Your task to perform on an android device: visit the assistant section in the google photos Image 0: 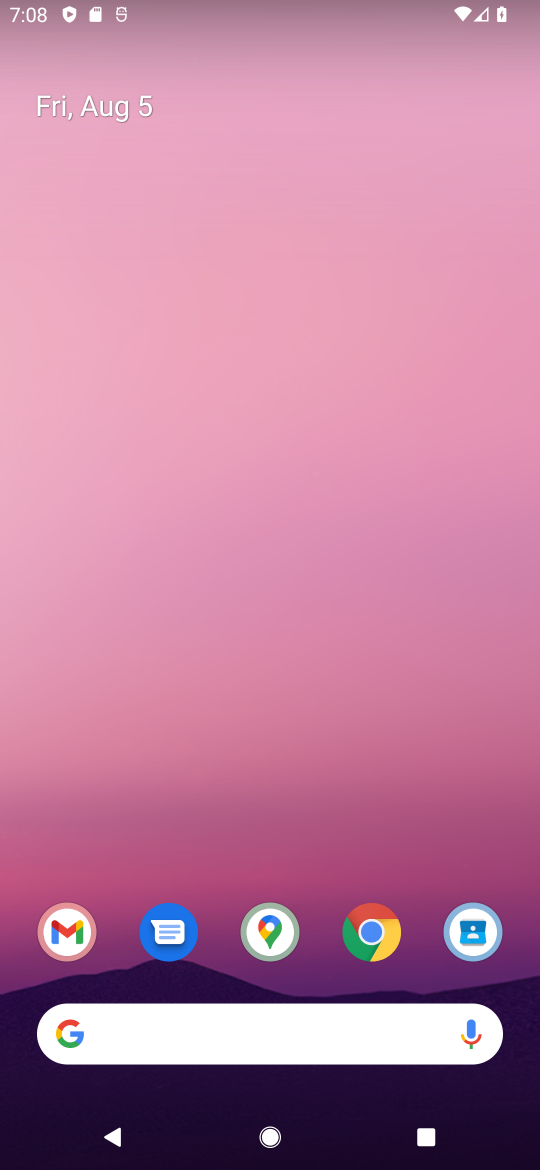
Step 0: drag from (411, 878) to (371, 204)
Your task to perform on an android device: visit the assistant section in the google photos Image 1: 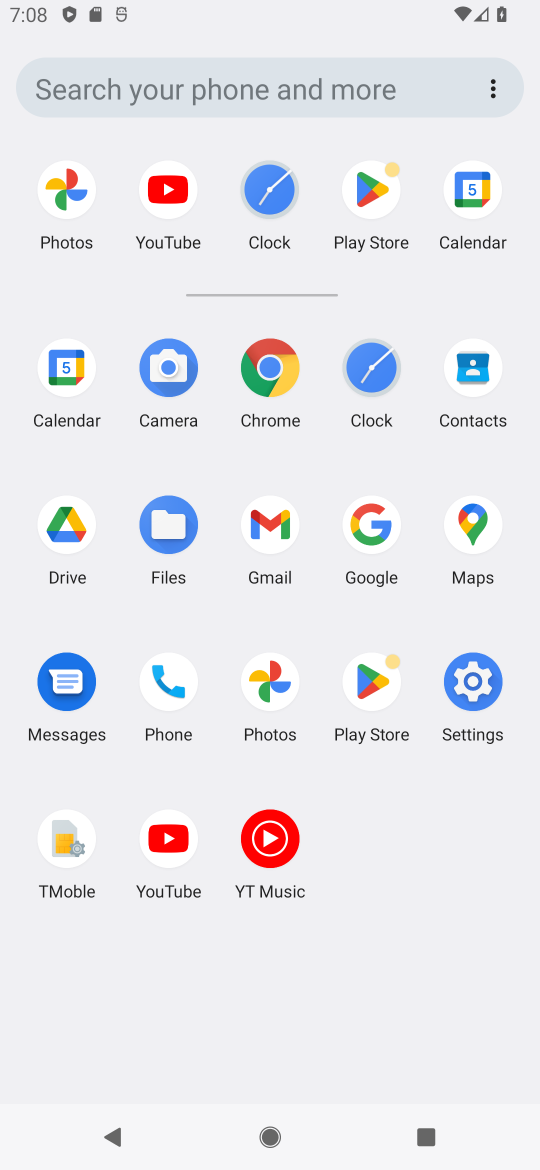
Step 1: click (275, 663)
Your task to perform on an android device: visit the assistant section in the google photos Image 2: 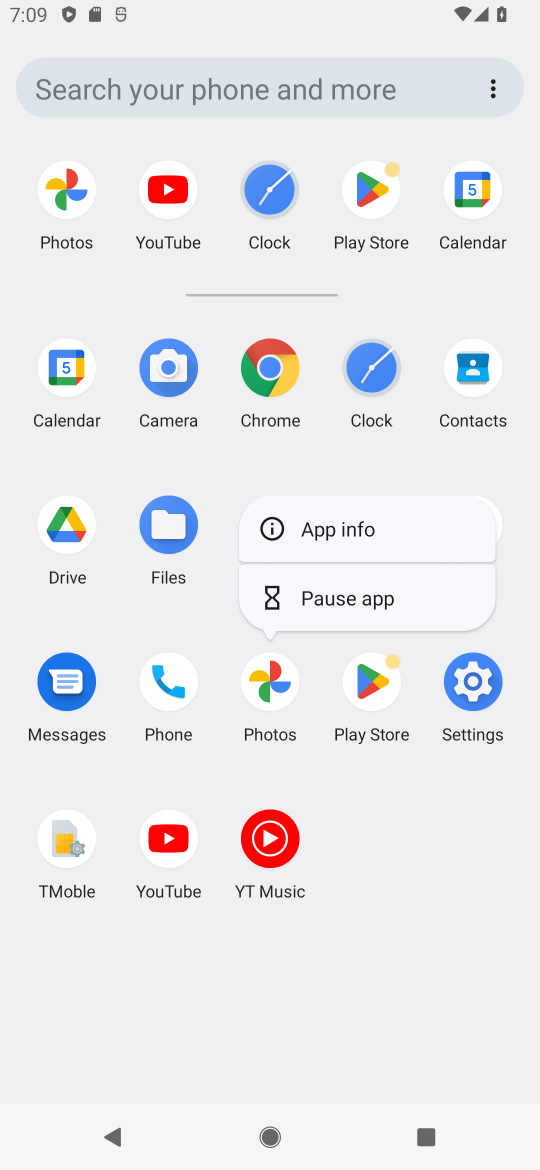
Step 2: click (275, 678)
Your task to perform on an android device: visit the assistant section in the google photos Image 3: 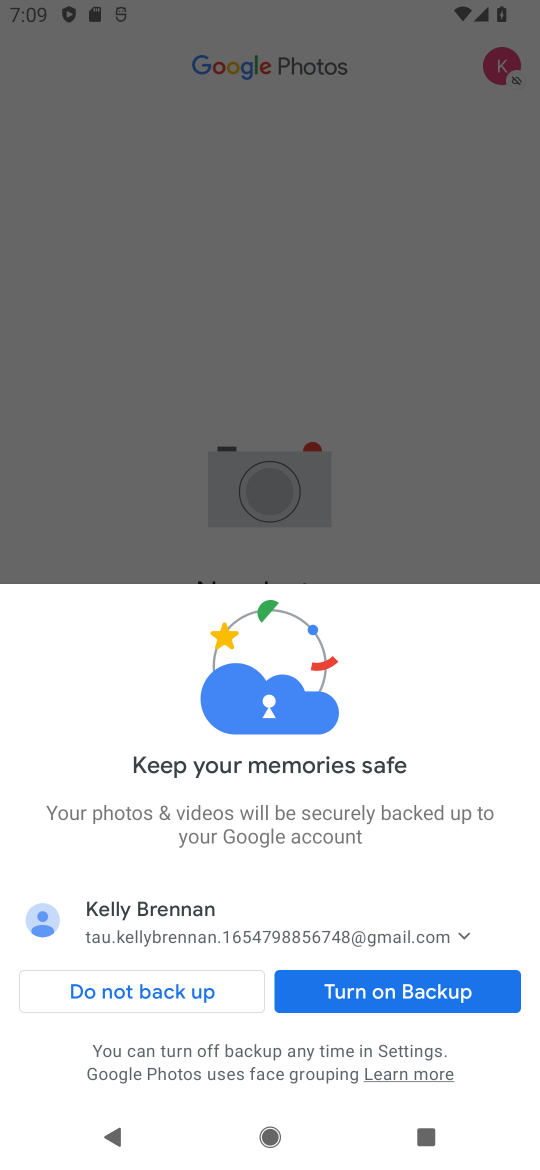
Step 3: click (390, 984)
Your task to perform on an android device: visit the assistant section in the google photos Image 4: 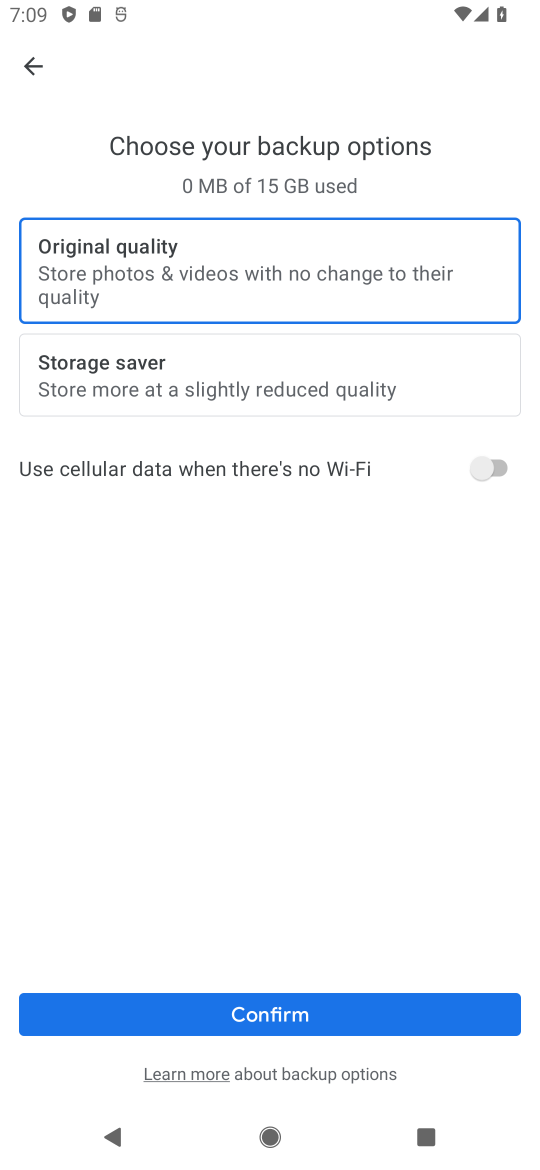
Step 4: click (391, 1002)
Your task to perform on an android device: visit the assistant section in the google photos Image 5: 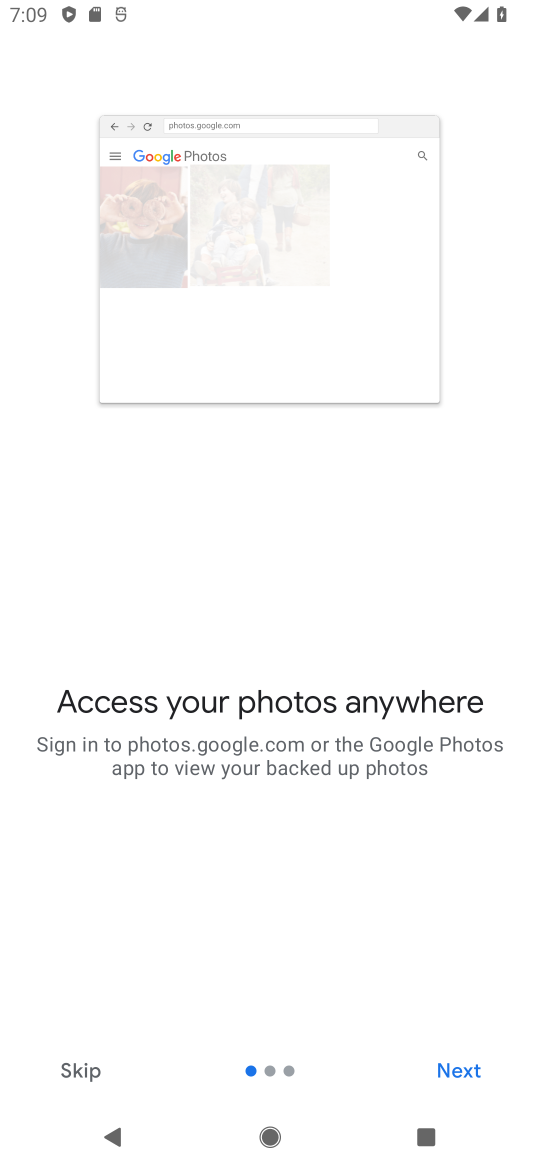
Step 5: click (445, 1073)
Your task to perform on an android device: visit the assistant section in the google photos Image 6: 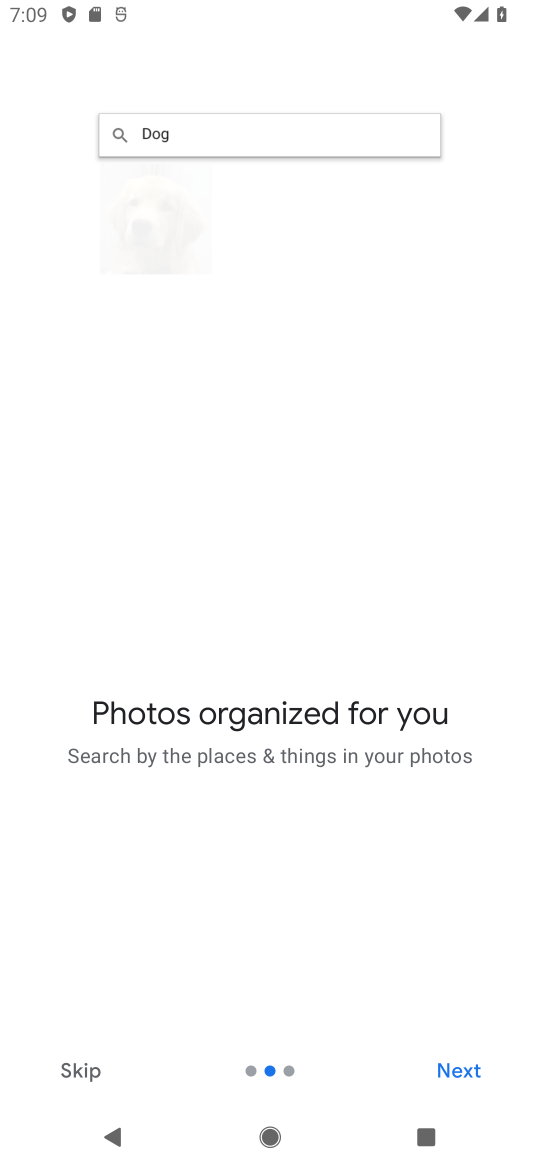
Step 6: click (445, 1072)
Your task to perform on an android device: visit the assistant section in the google photos Image 7: 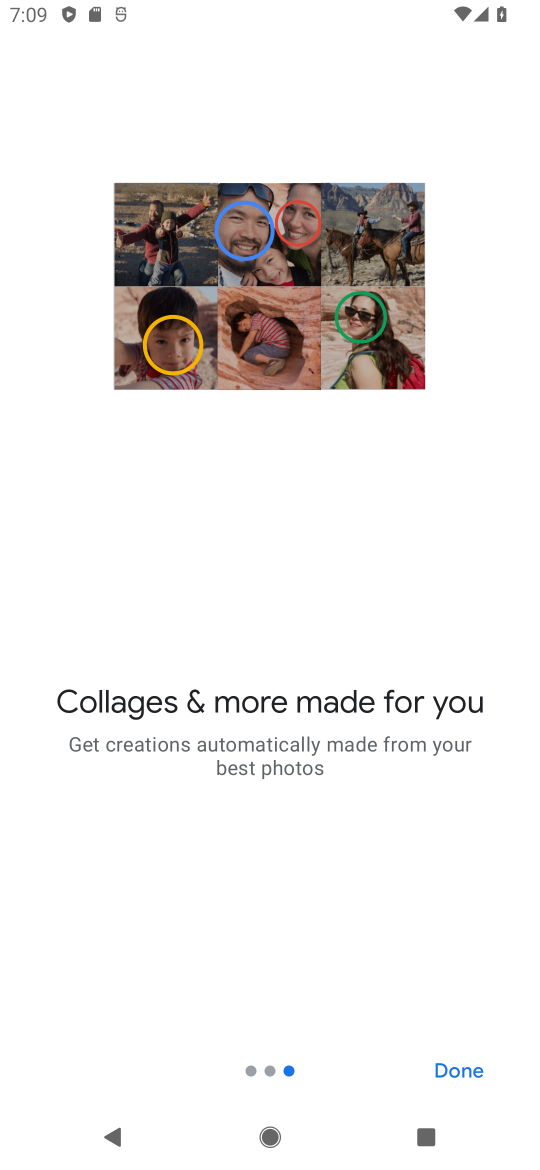
Step 7: click (454, 1069)
Your task to perform on an android device: visit the assistant section in the google photos Image 8: 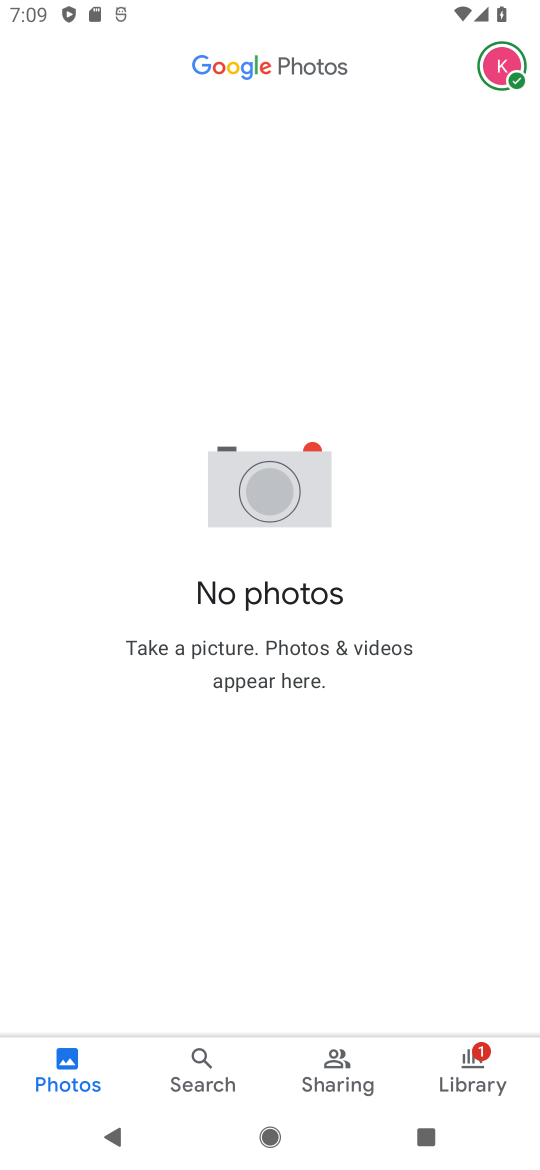
Step 8: click (465, 1059)
Your task to perform on an android device: visit the assistant section in the google photos Image 9: 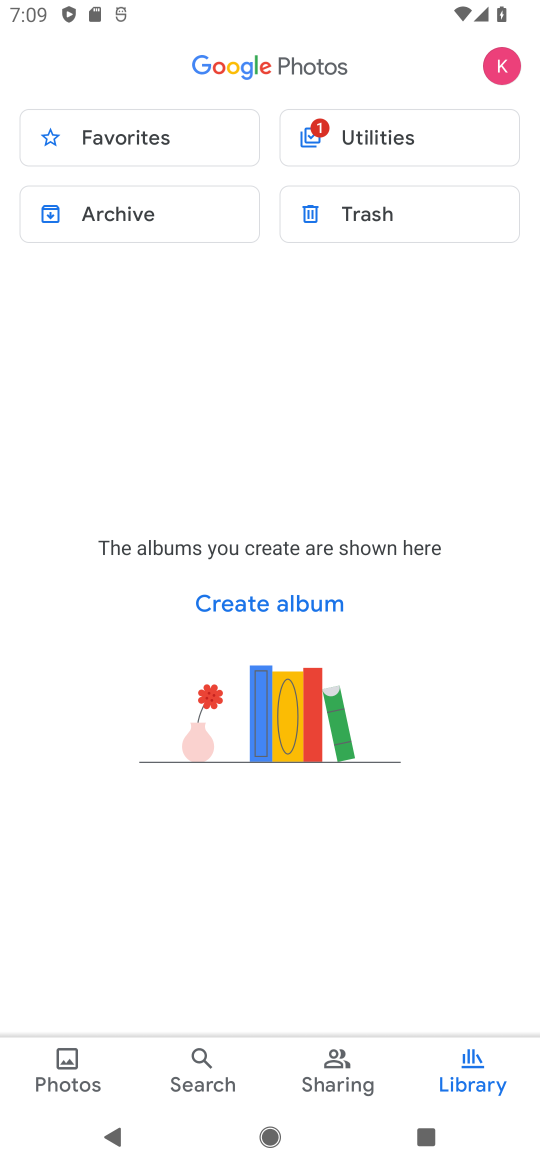
Step 9: click (432, 148)
Your task to perform on an android device: visit the assistant section in the google photos Image 10: 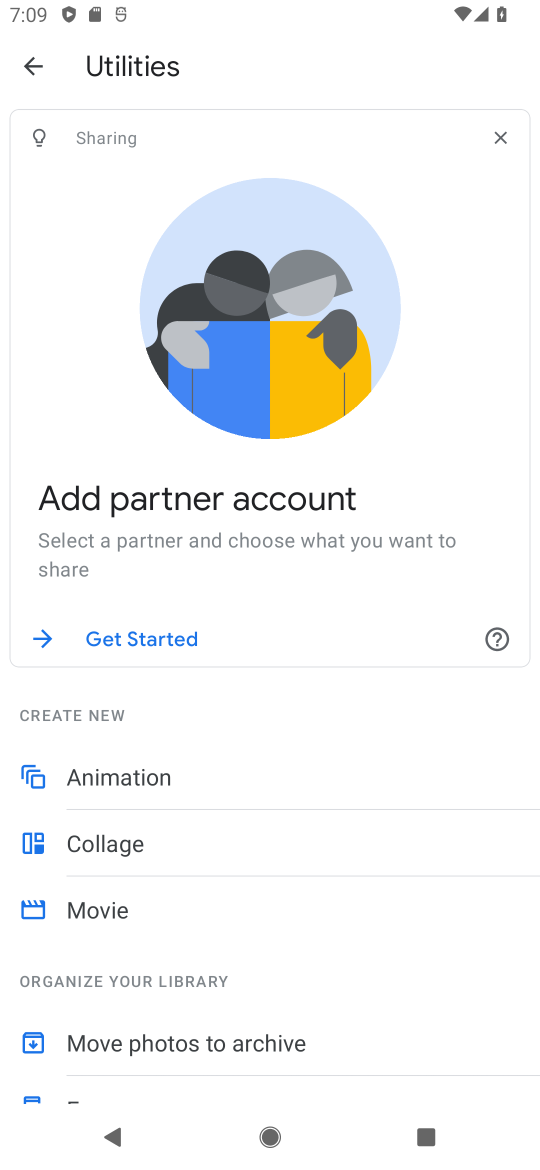
Step 10: task complete